Your task to perform on an android device: choose inbox layout in the gmail app Image 0: 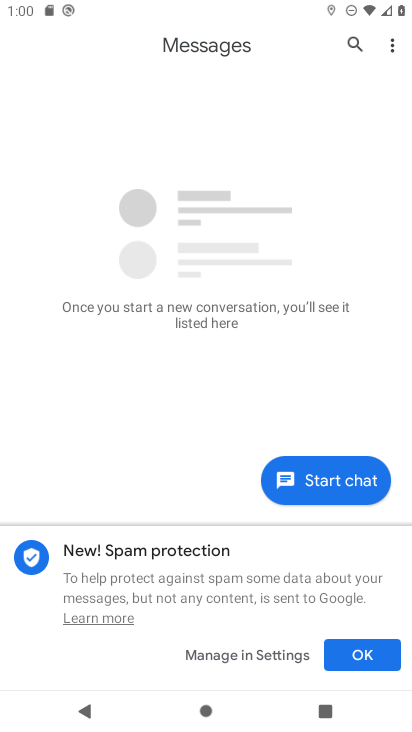
Step 0: press home button
Your task to perform on an android device: choose inbox layout in the gmail app Image 1: 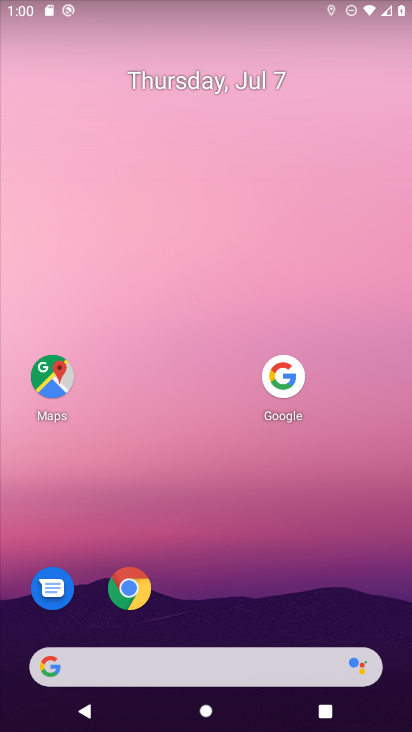
Step 1: drag from (209, 675) to (382, 115)
Your task to perform on an android device: choose inbox layout in the gmail app Image 2: 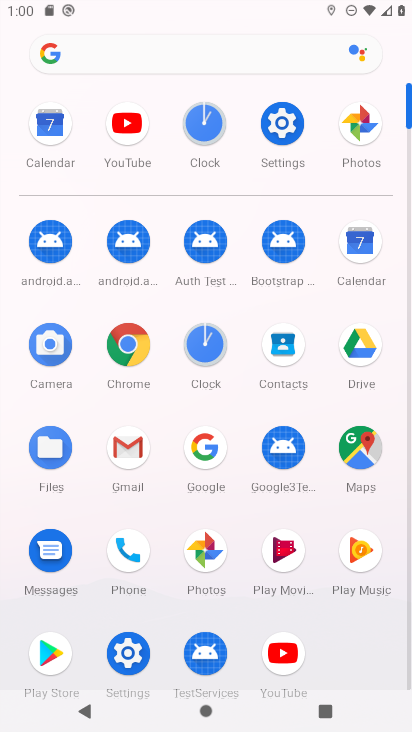
Step 2: click (135, 459)
Your task to perform on an android device: choose inbox layout in the gmail app Image 3: 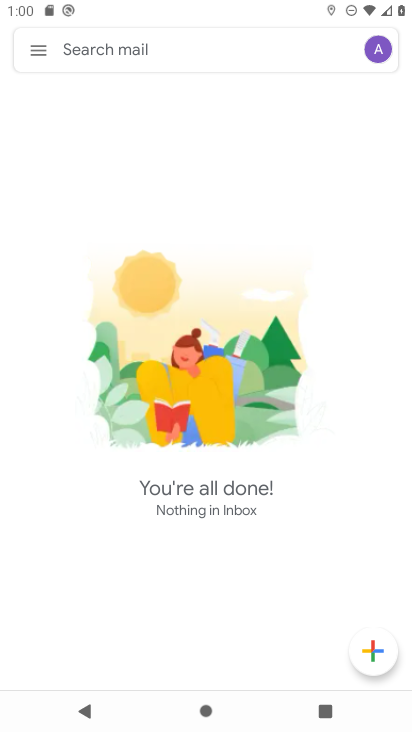
Step 3: click (42, 44)
Your task to perform on an android device: choose inbox layout in the gmail app Image 4: 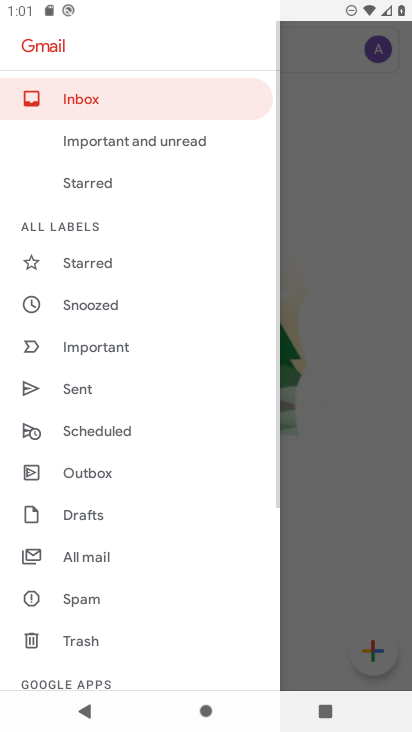
Step 4: drag from (95, 617) to (246, 89)
Your task to perform on an android device: choose inbox layout in the gmail app Image 5: 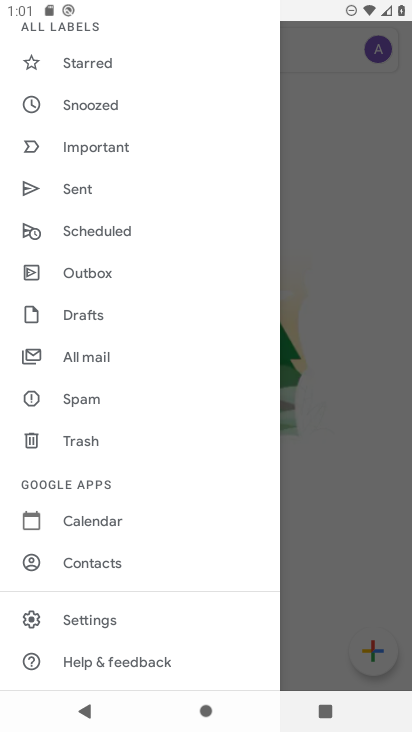
Step 5: click (103, 626)
Your task to perform on an android device: choose inbox layout in the gmail app Image 6: 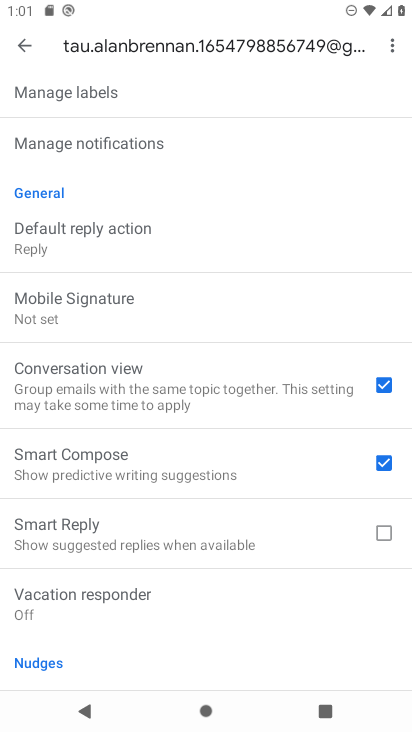
Step 6: drag from (311, 245) to (148, 586)
Your task to perform on an android device: choose inbox layout in the gmail app Image 7: 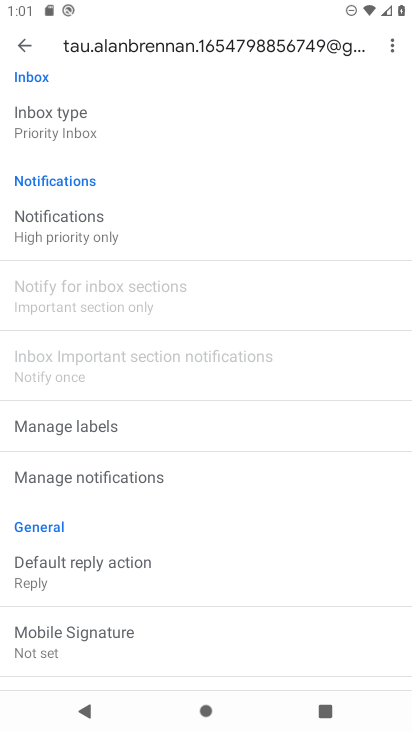
Step 7: click (54, 135)
Your task to perform on an android device: choose inbox layout in the gmail app Image 8: 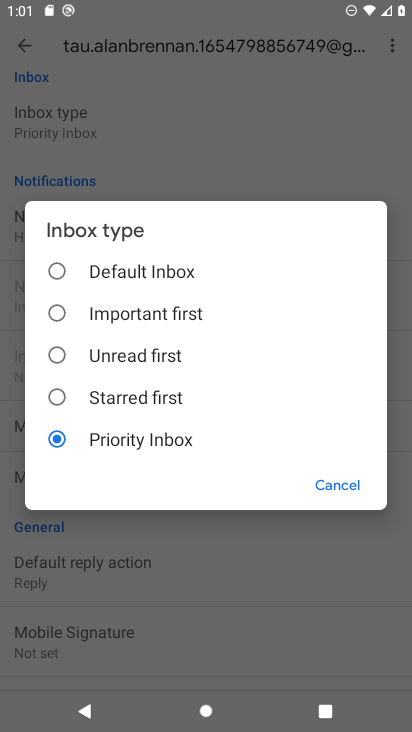
Step 8: click (57, 261)
Your task to perform on an android device: choose inbox layout in the gmail app Image 9: 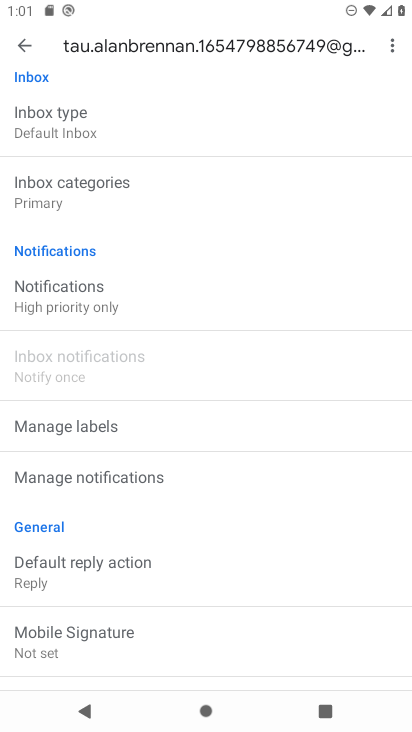
Step 9: task complete